Your task to perform on an android device: open a bookmark in the chrome app Image 0: 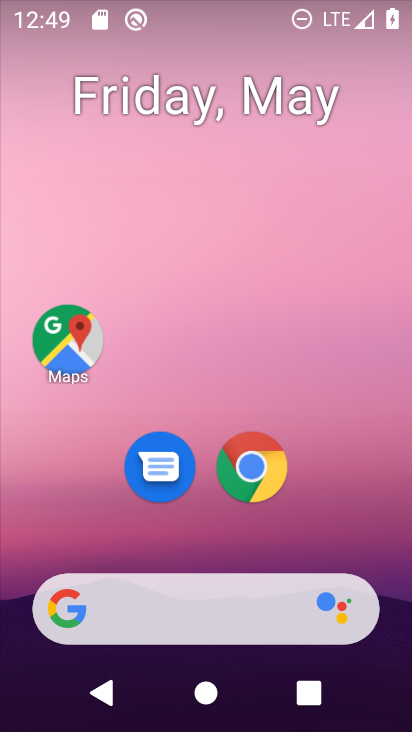
Step 0: drag from (345, 545) to (354, 26)
Your task to perform on an android device: open a bookmark in the chrome app Image 1: 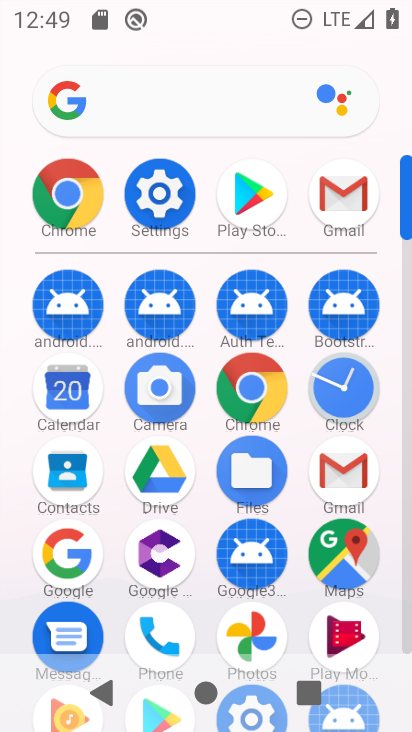
Step 1: click (260, 396)
Your task to perform on an android device: open a bookmark in the chrome app Image 2: 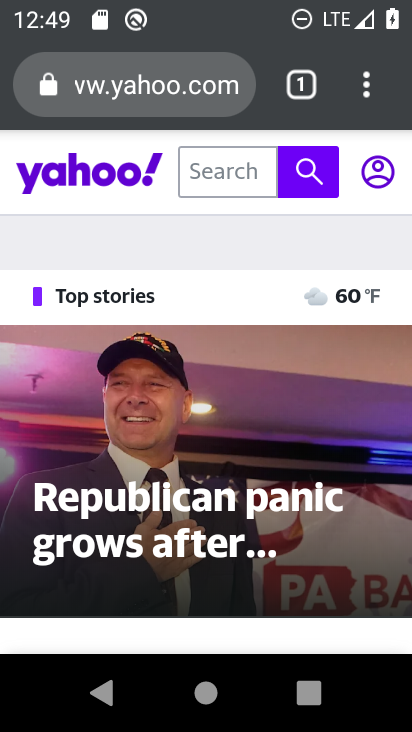
Step 2: task complete